Your task to perform on an android device: turn off notifications in google photos Image 0: 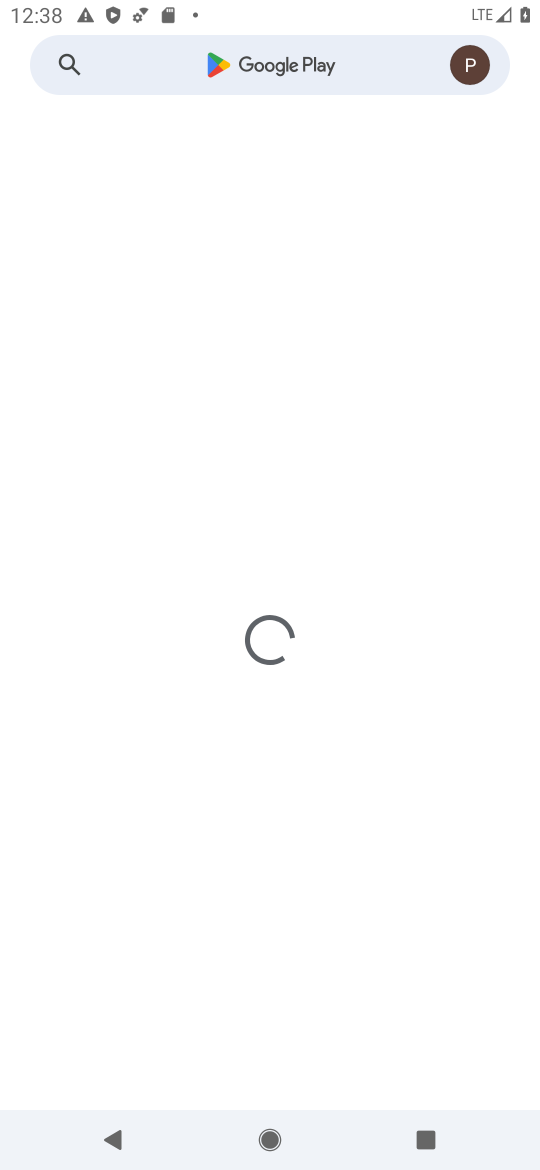
Step 0: press back button
Your task to perform on an android device: turn off notifications in google photos Image 1: 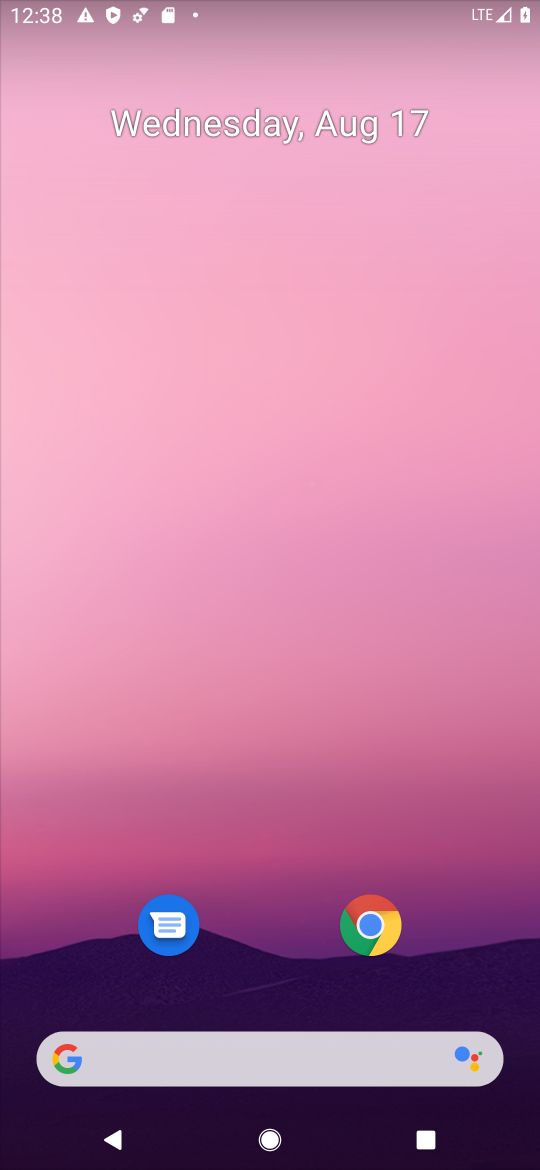
Step 1: drag from (291, 988) to (237, 101)
Your task to perform on an android device: turn off notifications in google photos Image 2: 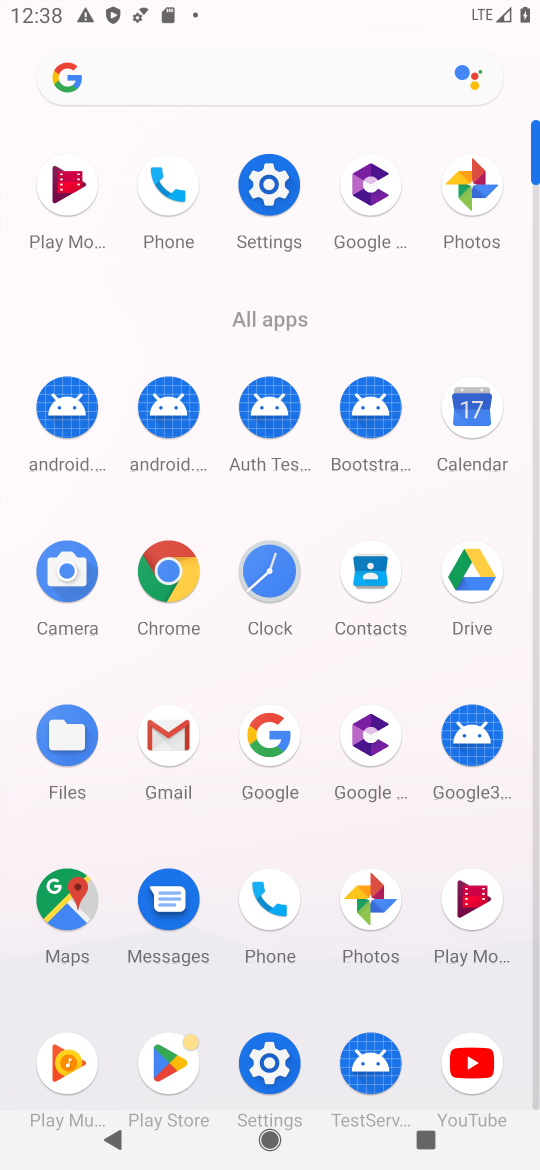
Step 2: click (351, 916)
Your task to perform on an android device: turn off notifications in google photos Image 3: 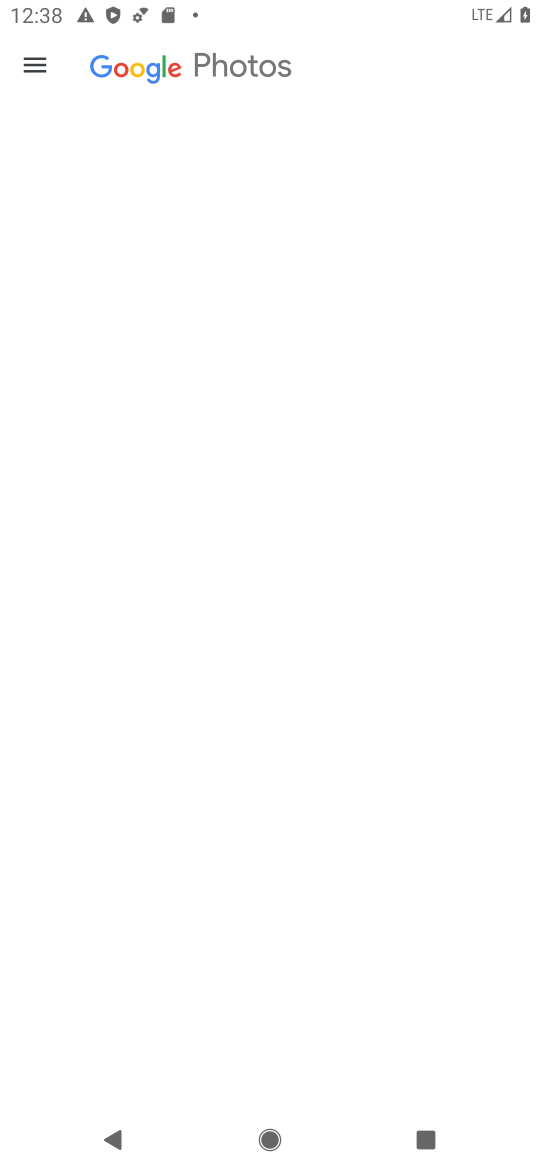
Step 3: click (27, 59)
Your task to perform on an android device: turn off notifications in google photos Image 4: 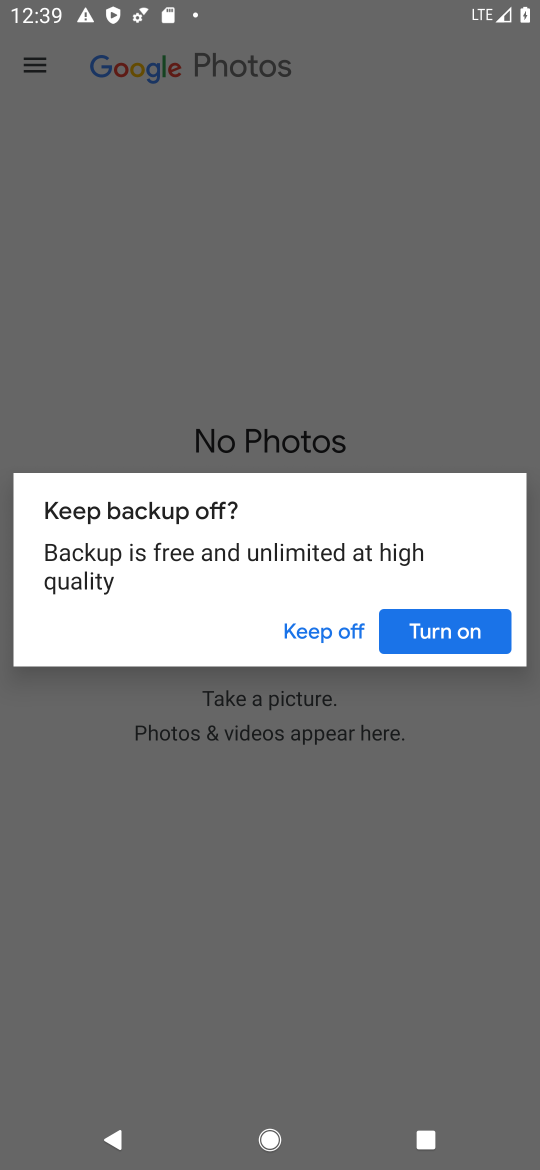
Step 4: click (453, 625)
Your task to perform on an android device: turn off notifications in google photos Image 5: 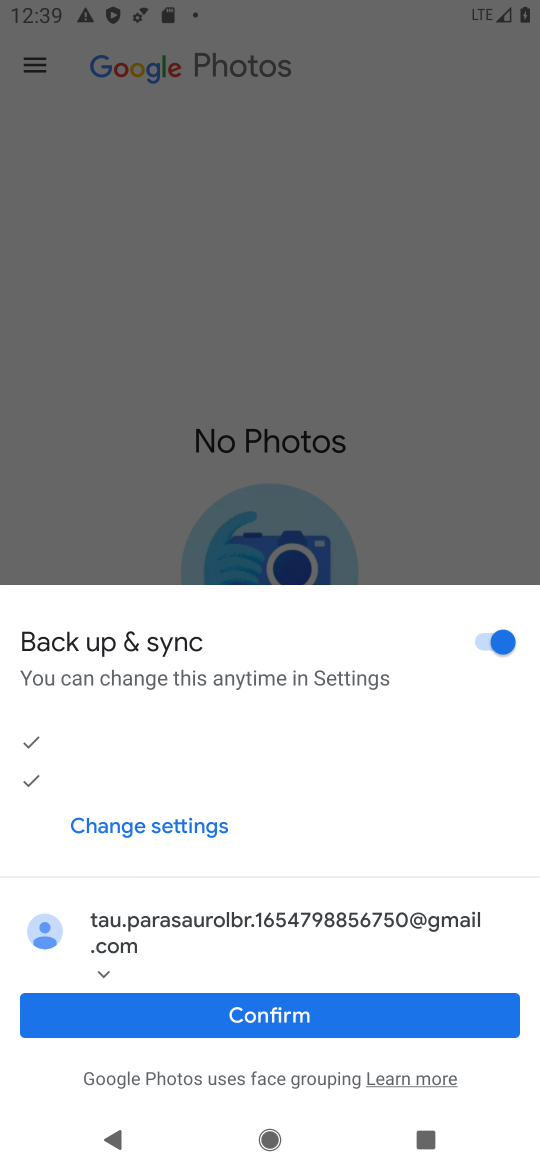
Step 5: click (311, 1019)
Your task to perform on an android device: turn off notifications in google photos Image 6: 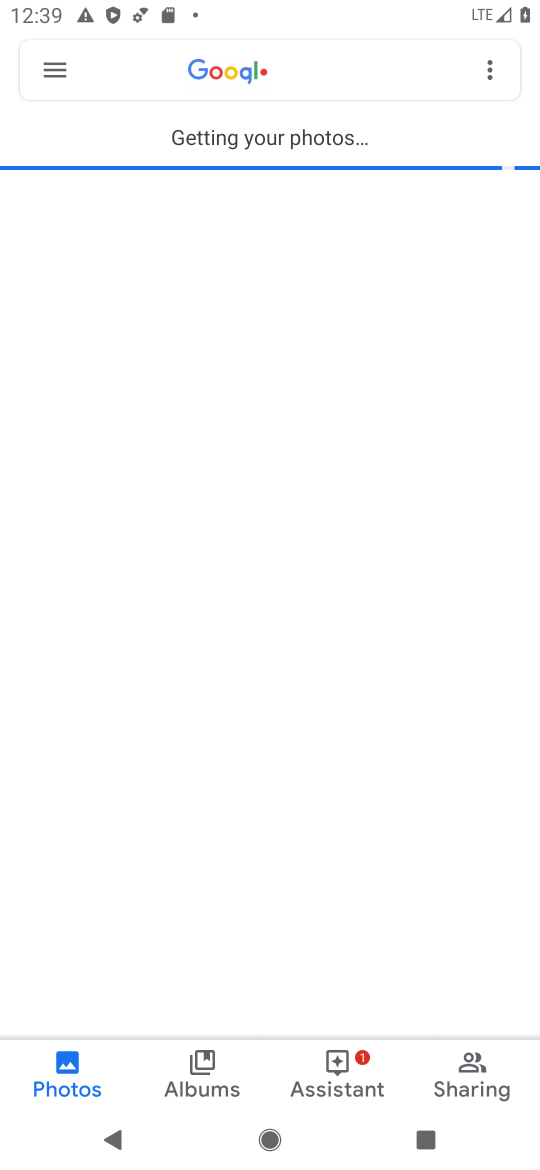
Step 6: click (51, 69)
Your task to perform on an android device: turn off notifications in google photos Image 7: 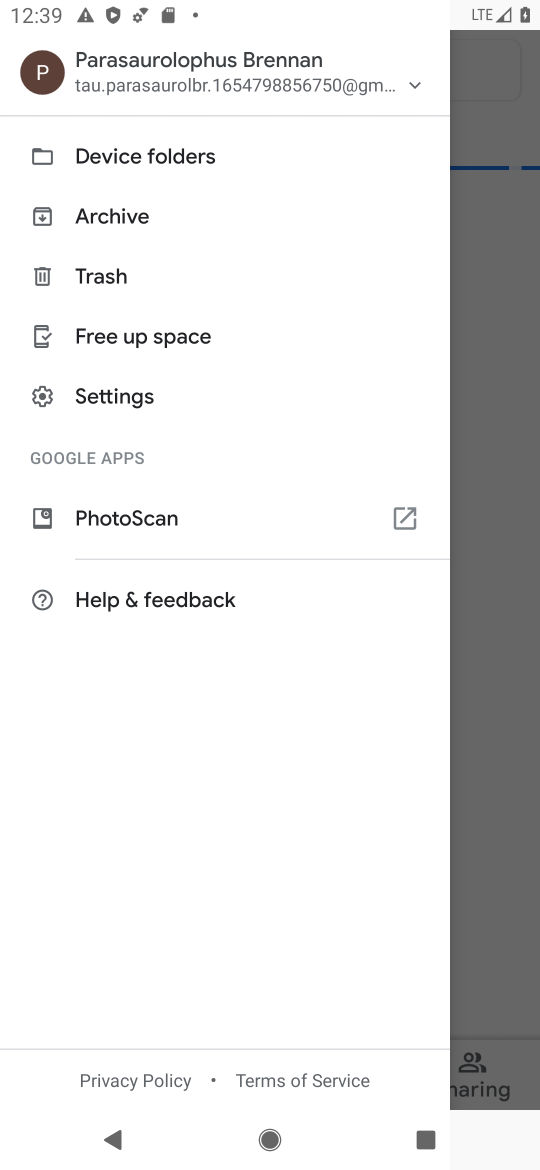
Step 7: click (133, 396)
Your task to perform on an android device: turn off notifications in google photos Image 8: 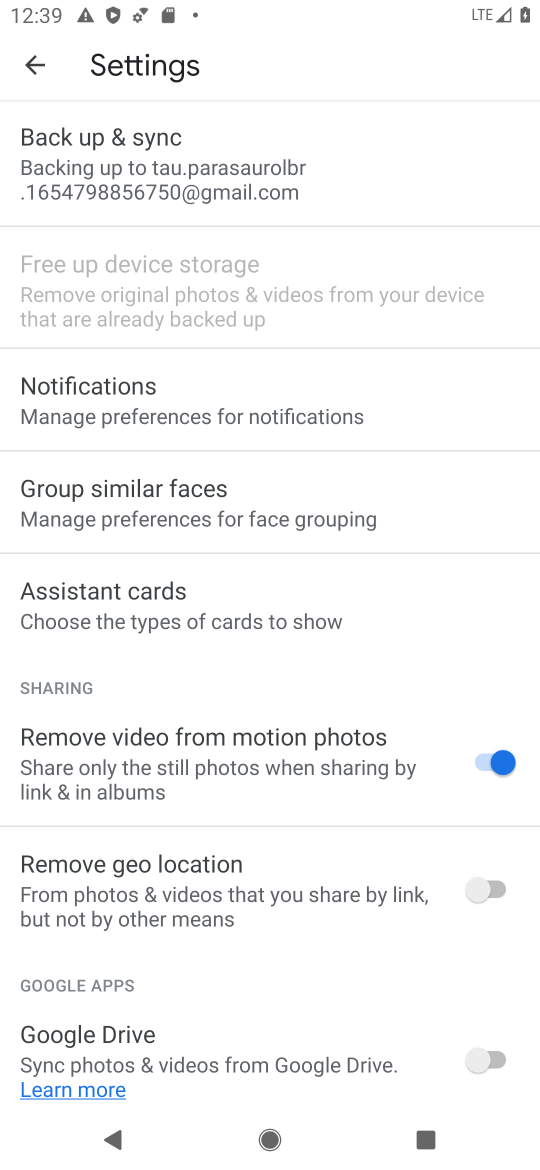
Step 8: click (115, 410)
Your task to perform on an android device: turn off notifications in google photos Image 9: 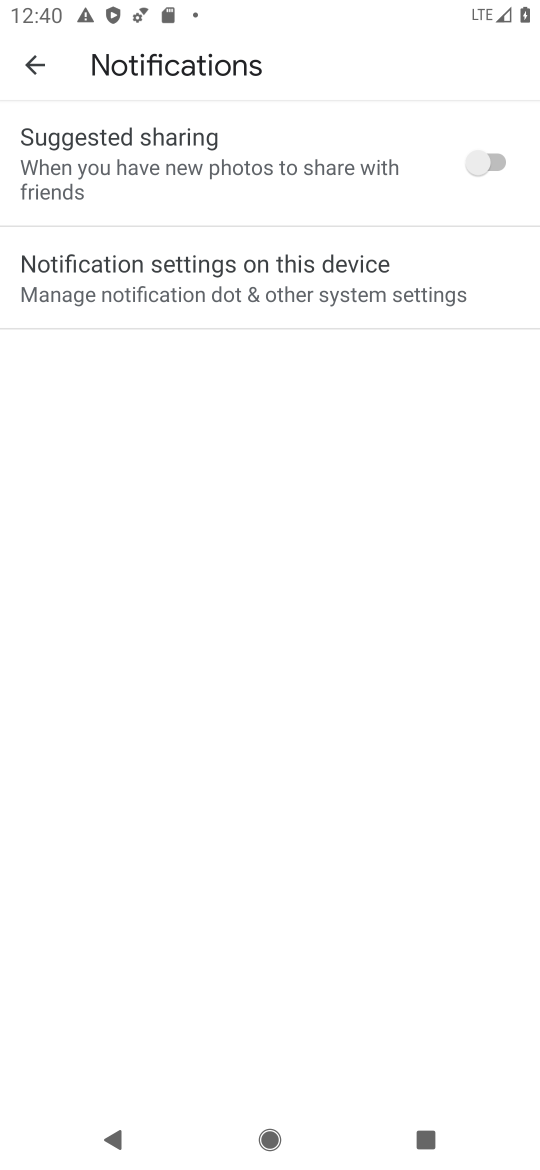
Step 9: click (237, 267)
Your task to perform on an android device: turn off notifications in google photos Image 10: 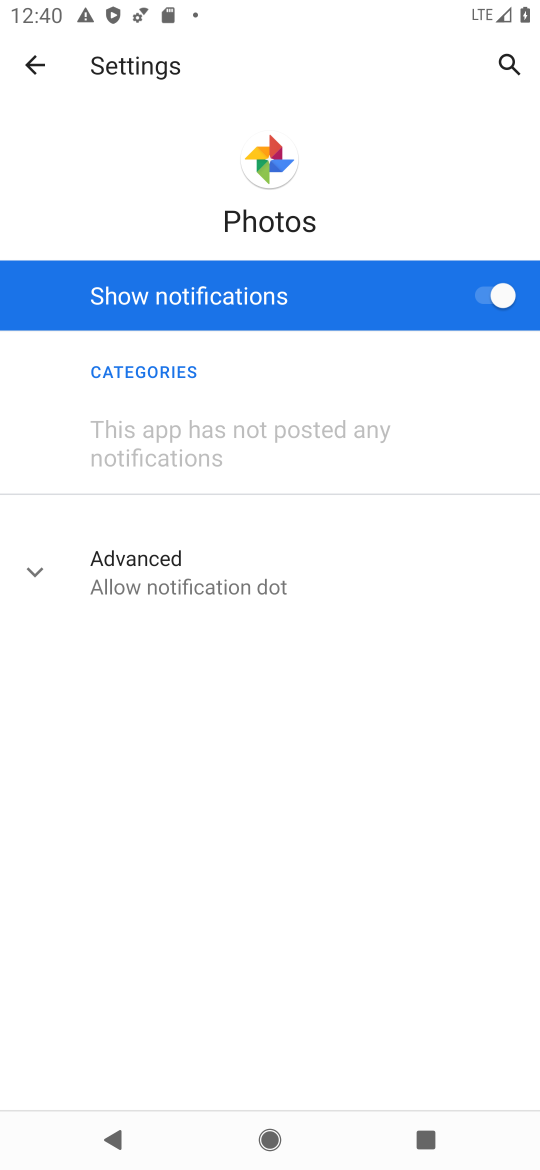
Step 10: click (468, 303)
Your task to perform on an android device: turn off notifications in google photos Image 11: 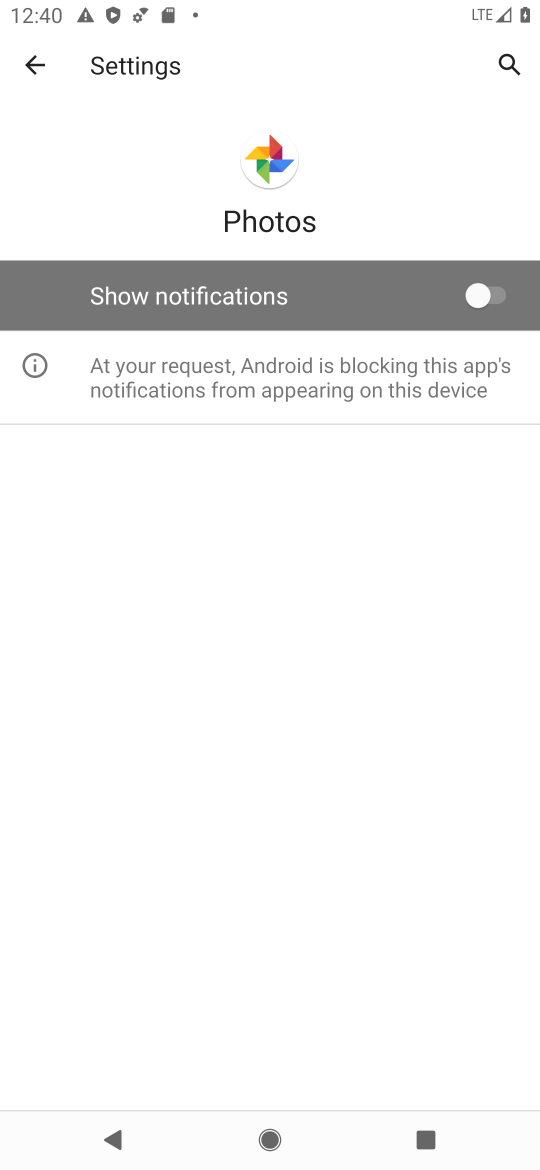
Step 11: task complete